Your task to perform on an android device: Search for the best books on Goodreads. Image 0: 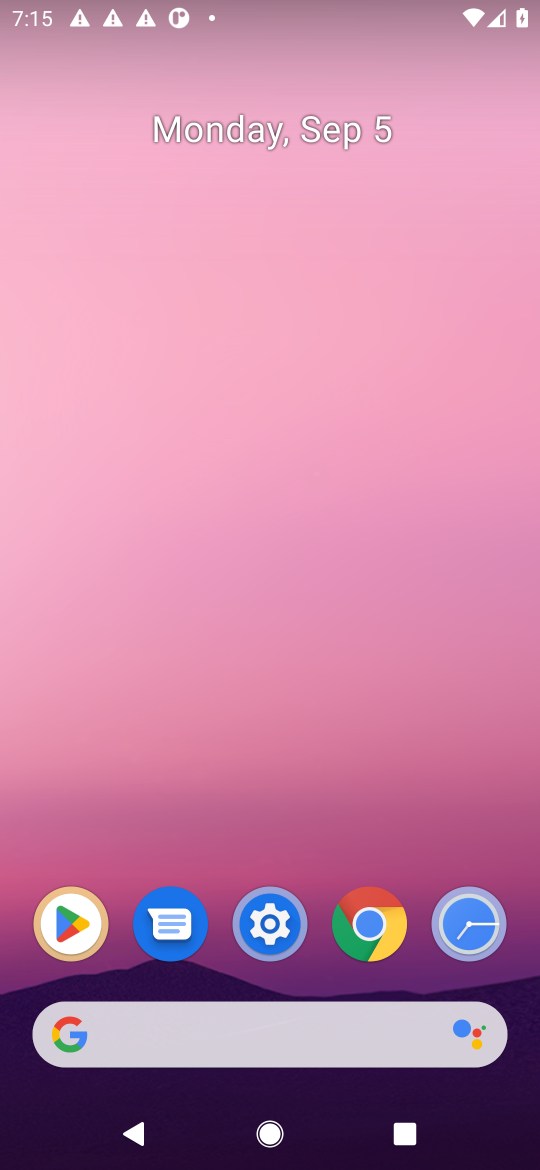
Step 0: click (312, 1023)
Your task to perform on an android device: Search for the best books on Goodreads. Image 1: 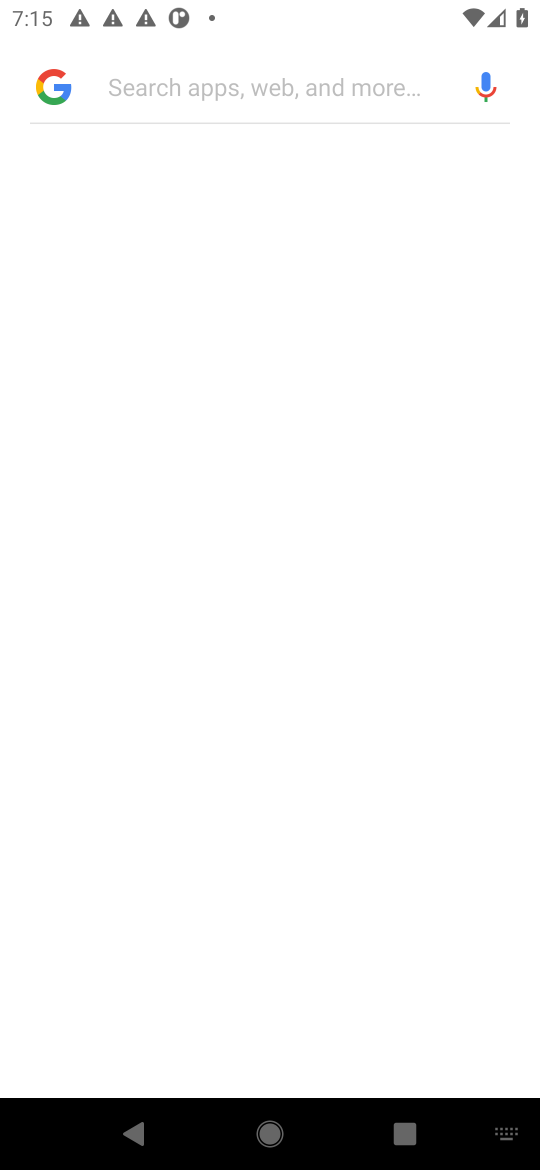
Step 1: type "goodreads"
Your task to perform on an android device: Search for the best books on Goodreads. Image 2: 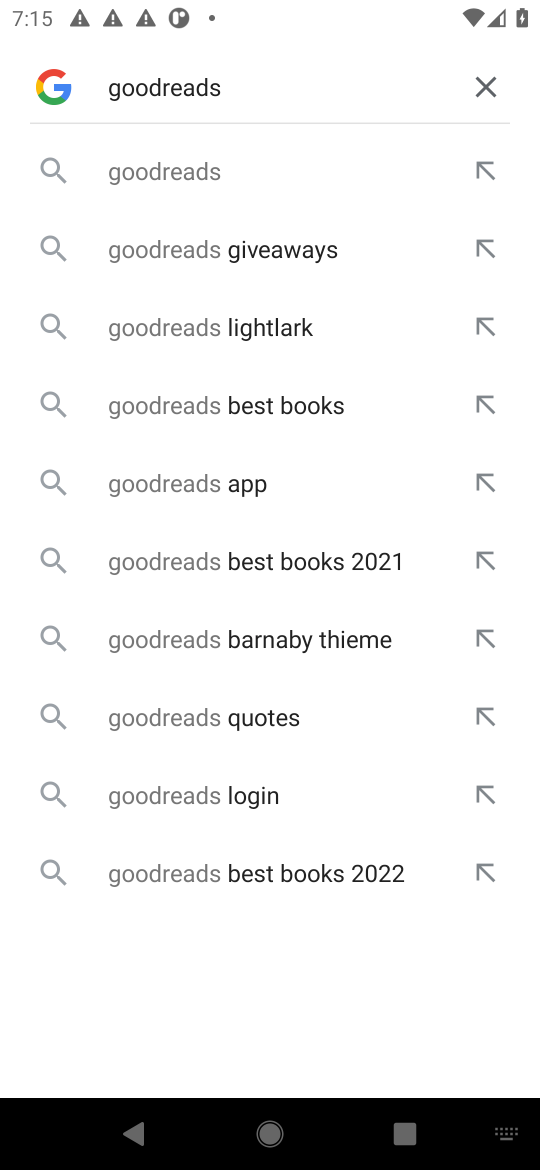
Step 2: press enter
Your task to perform on an android device: Search for the best books on Goodreads. Image 3: 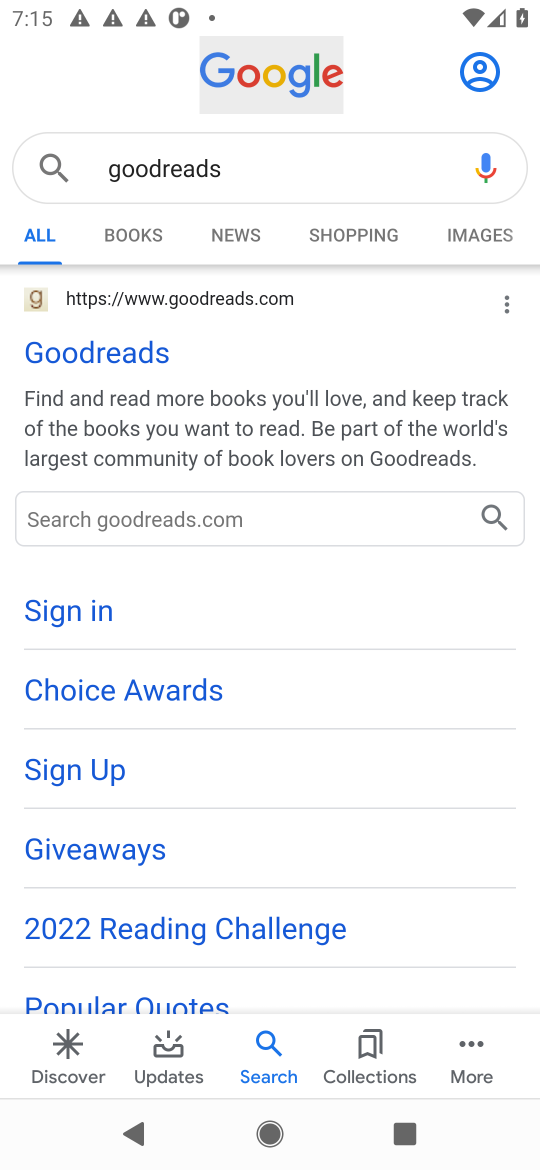
Step 3: click (153, 356)
Your task to perform on an android device: Search for the best books on Goodreads. Image 4: 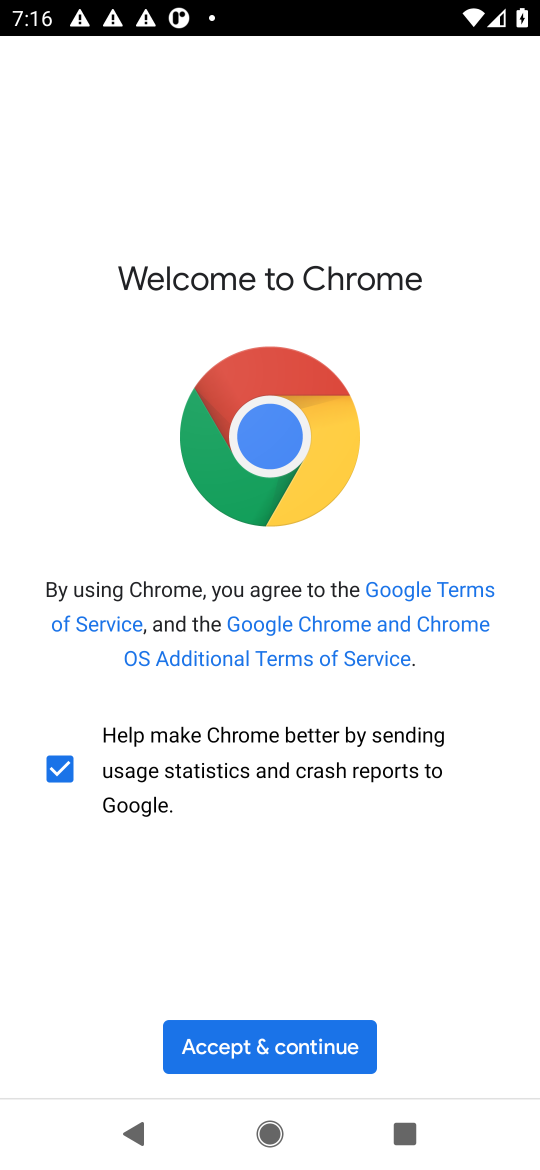
Step 4: click (294, 1042)
Your task to perform on an android device: Search for the best books on Goodreads. Image 5: 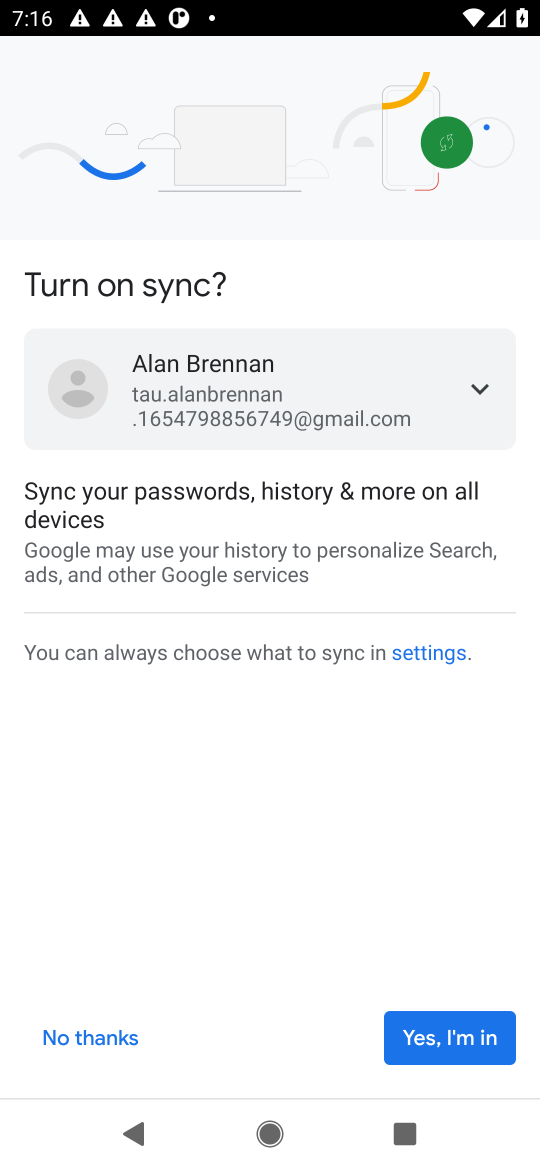
Step 5: click (439, 1054)
Your task to perform on an android device: Search for the best books on Goodreads. Image 6: 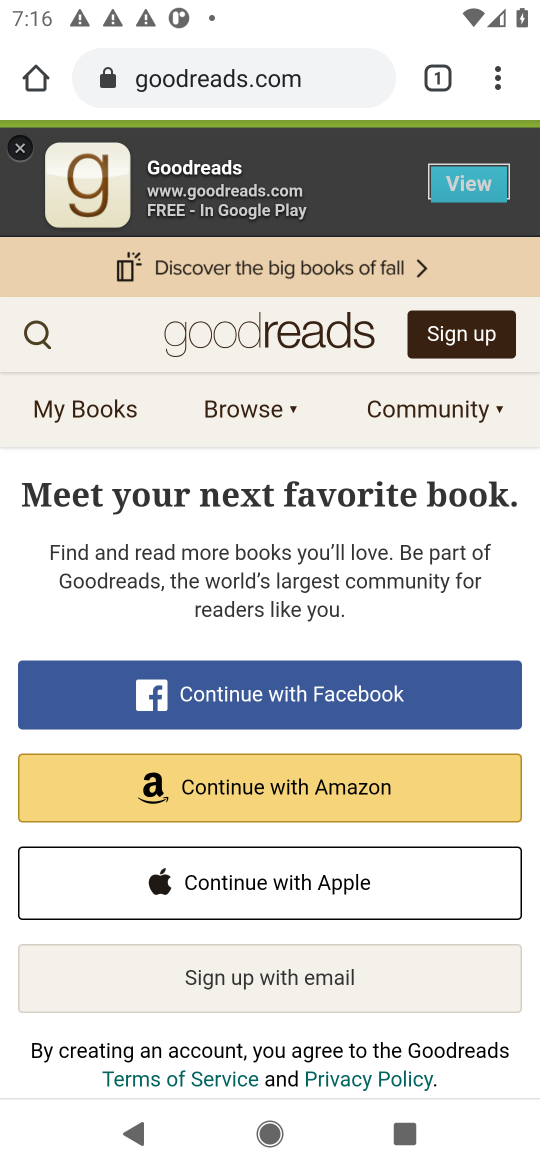
Step 6: click (58, 346)
Your task to perform on an android device: Search for the best books on Goodreads. Image 7: 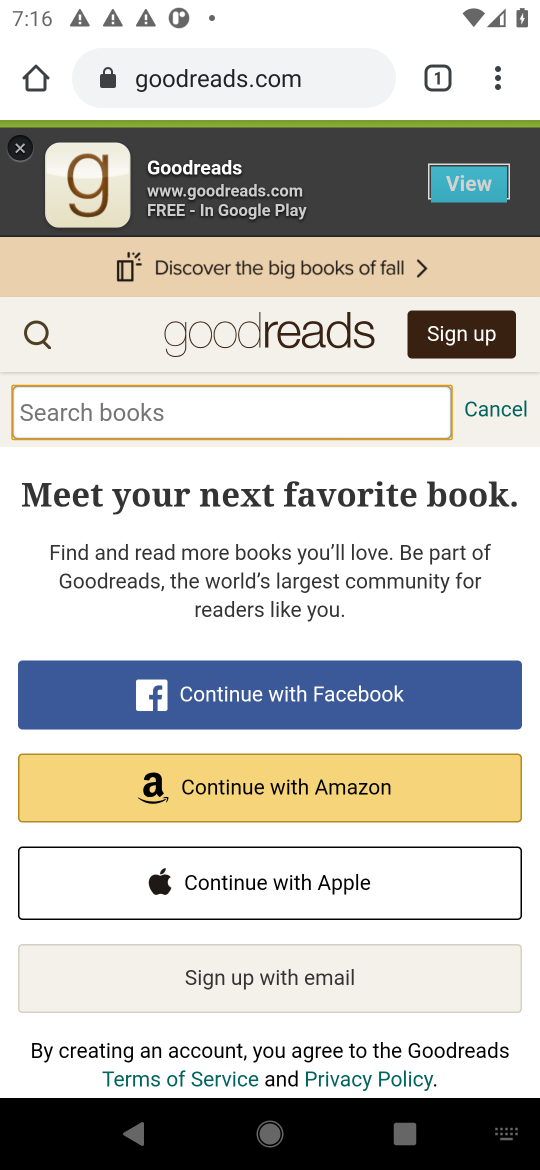
Step 7: type "best books"
Your task to perform on an android device: Search for the best books on Goodreads. Image 8: 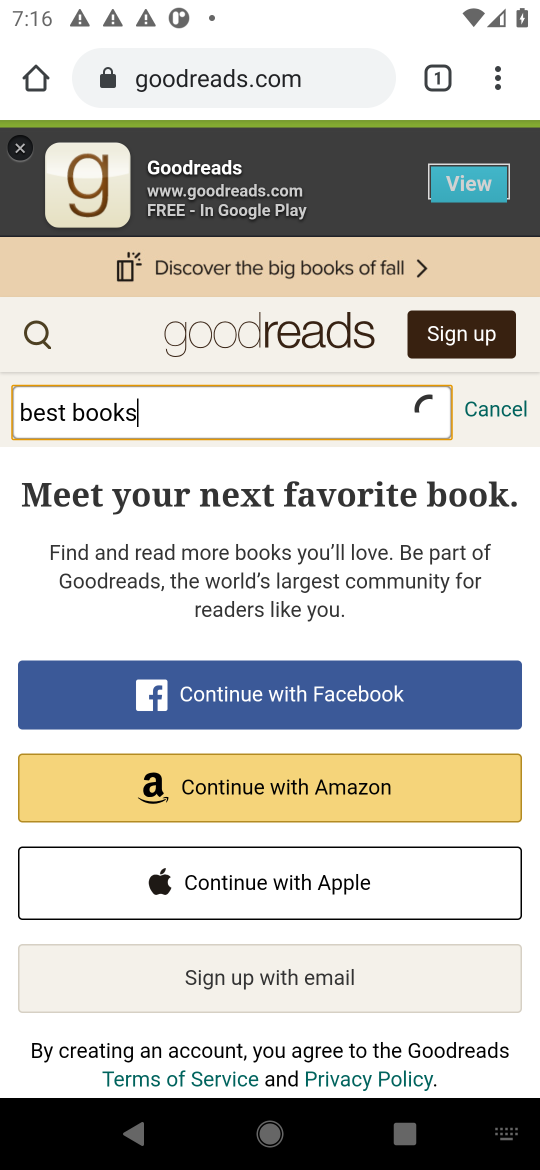
Step 8: press enter
Your task to perform on an android device: Search for the best books on Goodreads. Image 9: 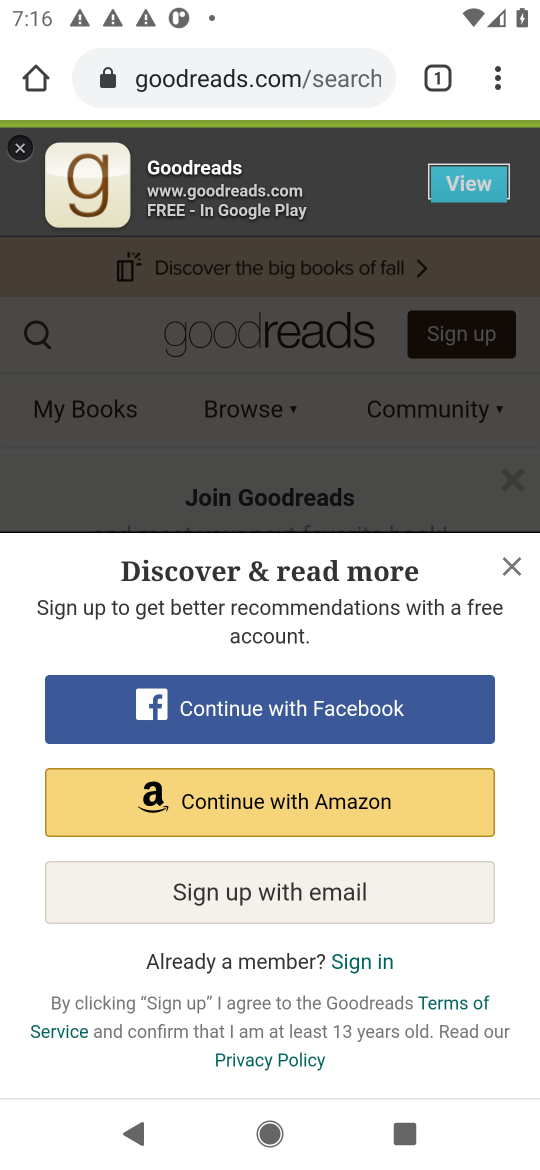
Step 9: click (509, 555)
Your task to perform on an android device: Search for the best books on Goodreads. Image 10: 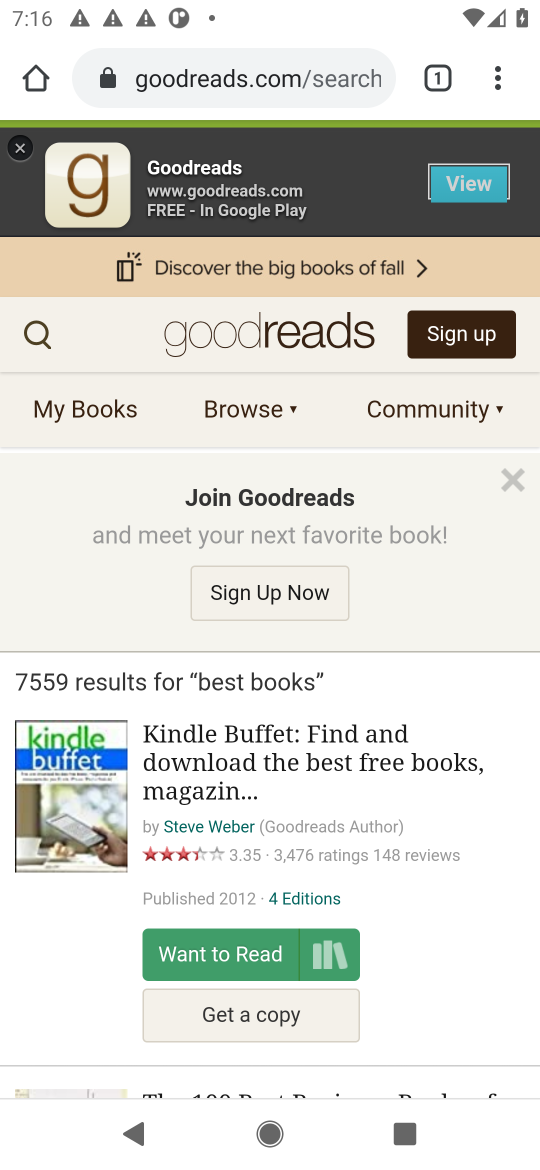
Step 10: task complete